Your task to perform on an android device: toggle airplane mode Image 0: 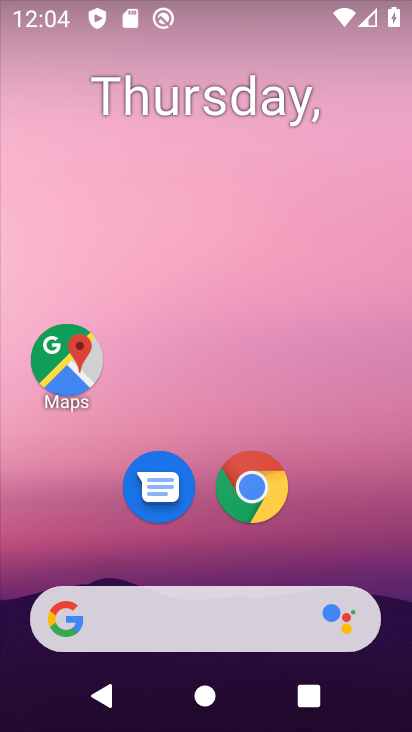
Step 0: drag from (367, 13) to (393, 697)
Your task to perform on an android device: toggle airplane mode Image 1: 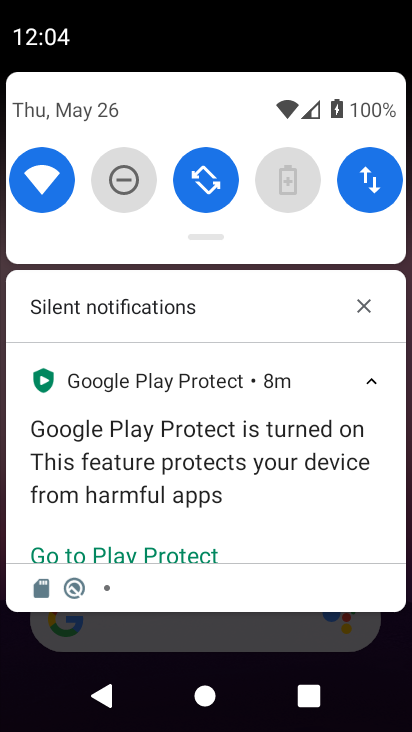
Step 1: drag from (204, 229) to (222, 660)
Your task to perform on an android device: toggle airplane mode Image 2: 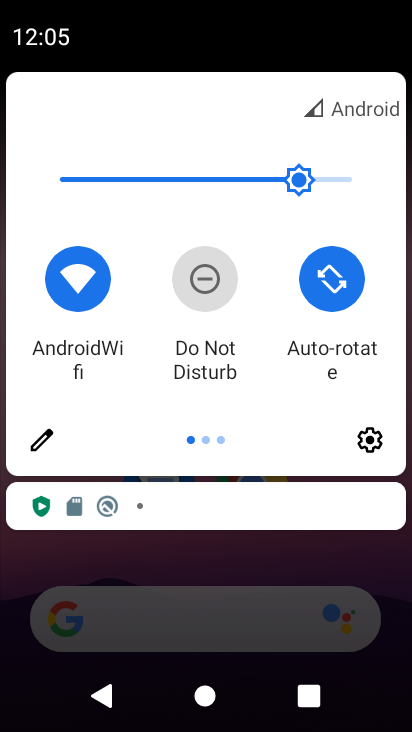
Step 2: drag from (407, 249) to (5, 269)
Your task to perform on an android device: toggle airplane mode Image 3: 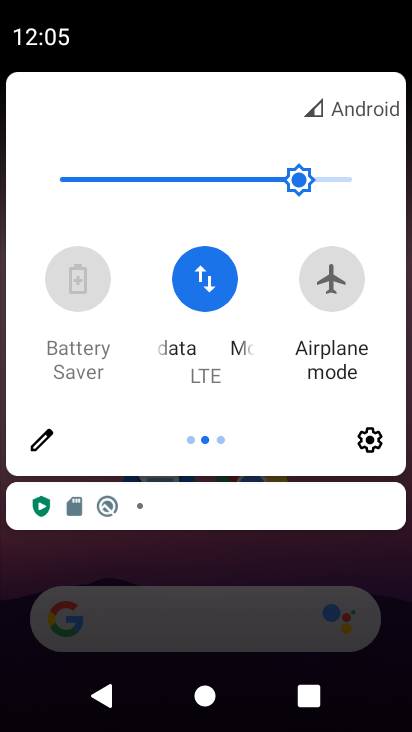
Step 3: click (344, 286)
Your task to perform on an android device: toggle airplane mode Image 4: 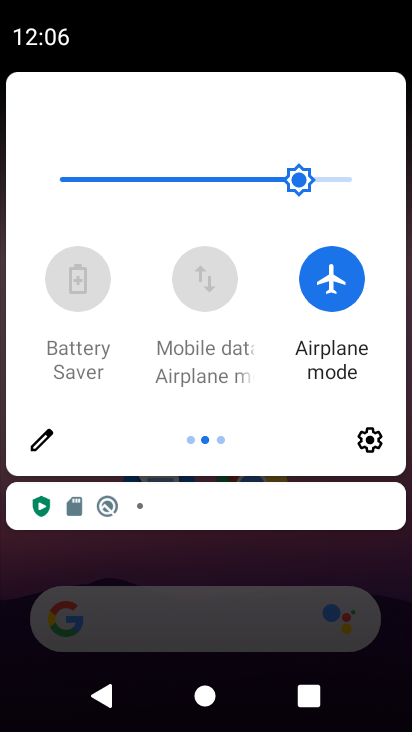
Step 4: task complete